Your task to perform on an android device: What's the weather? Image 0: 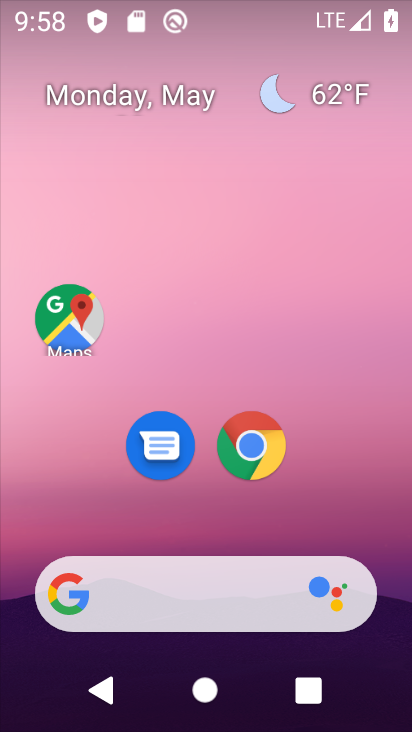
Step 0: drag from (391, 626) to (268, 100)
Your task to perform on an android device: What's the weather? Image 1: 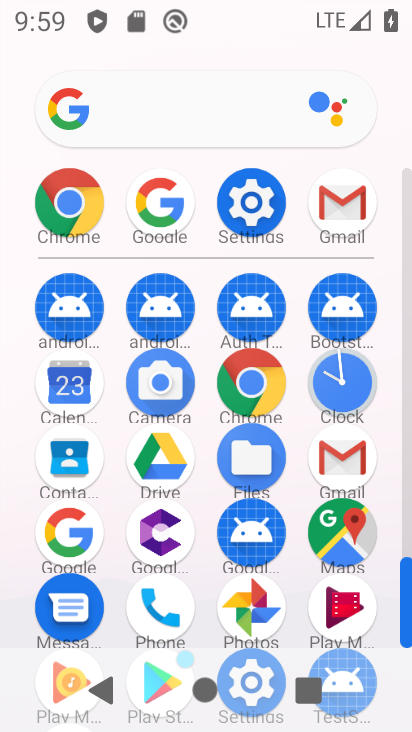
Step 1: click (180, 214)
Your task to perform on an android device: What's the weather? Image 2: 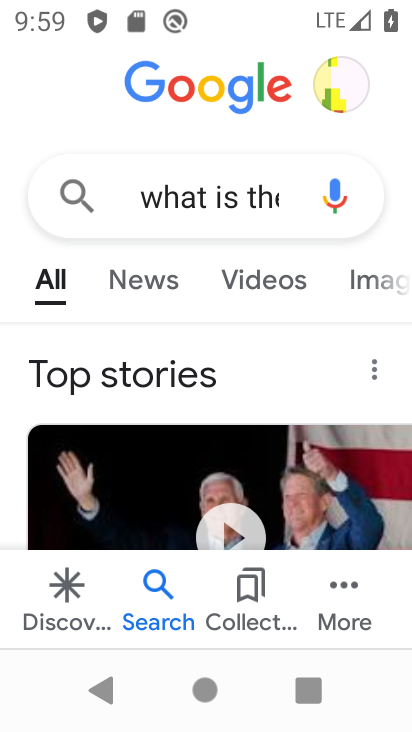
Step 2: press back button
Your task to perform on an android device: What's the weather? Image 3: 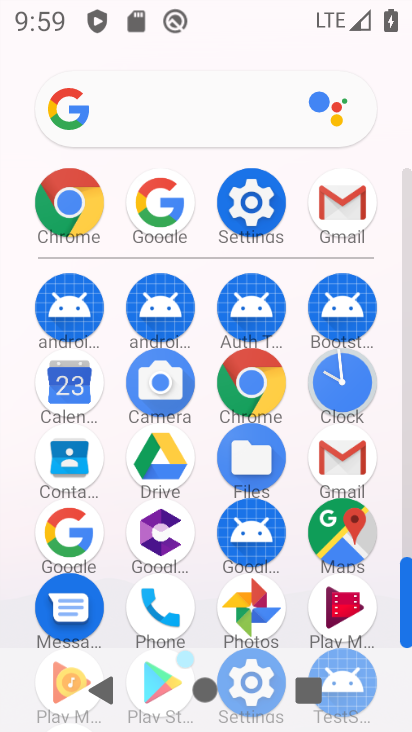
Step 3: click (154, 242)
Your task to perform on an android device: What's the weather? Image 4: 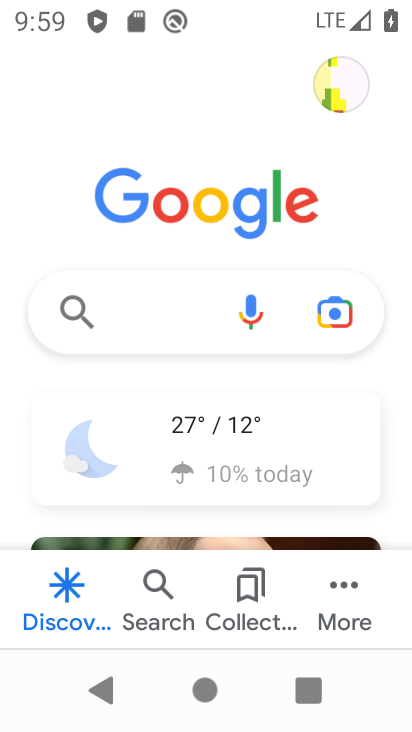
Step 4: click (160, 315)
Your task to perform on an android device: What's the weather? Image 5: 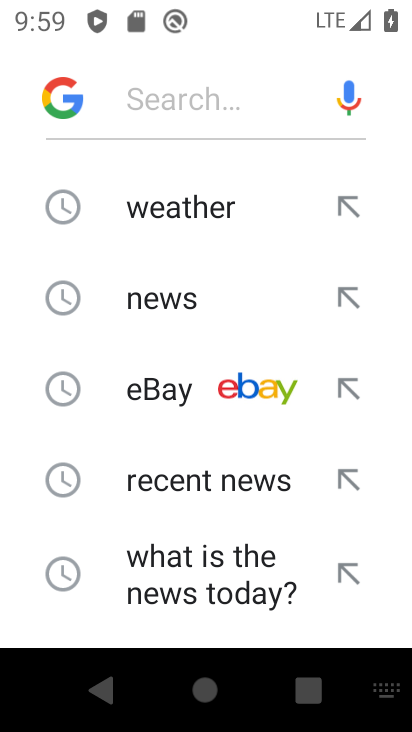
Step 5: click (185, 218)
Your task to perform on an android device: What's the weather? Image 6: 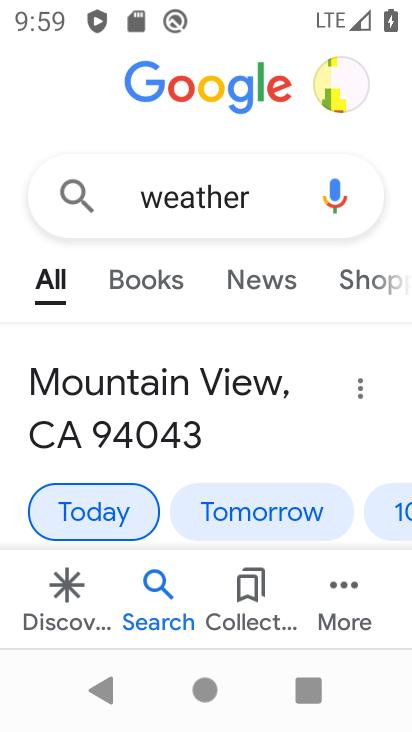
Step 6: task complete